Your task to perform on an android device: Open Google Maps Image 0: 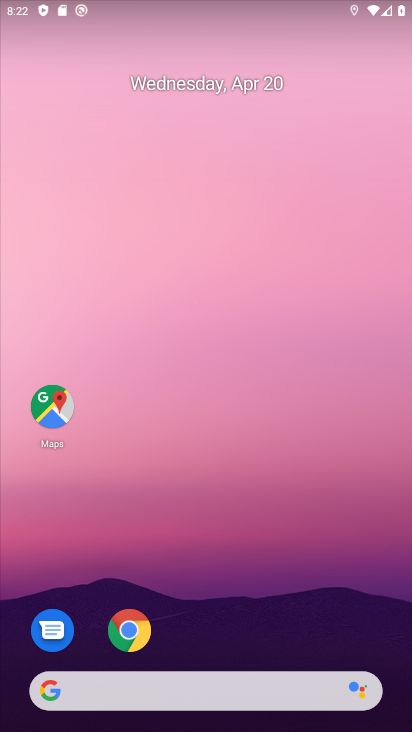
Step 0: click (64, 407)
Your task to perform on an android device: Open Google Maps Image 1: 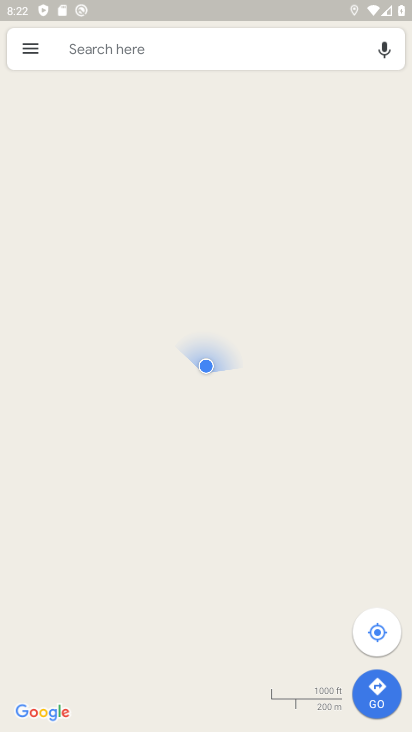
Step 1: task complete